Your task to perform on an android device: choose inbox layout in the gmail app Image 0: 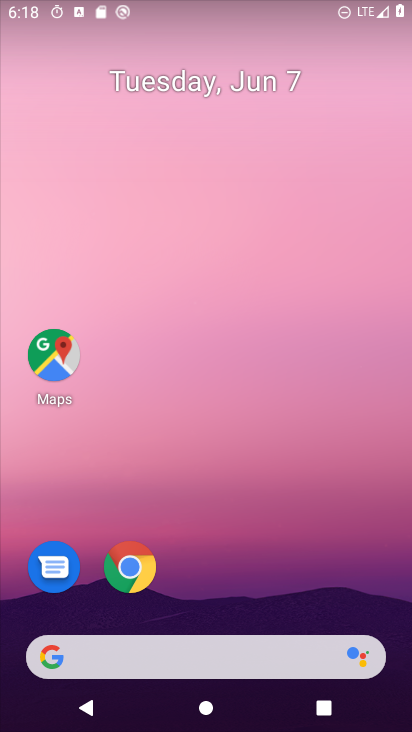
Step 0: drag from (328, 598) to (327, 12)
Your task to perform on an android device: choose inbox layout in the gmail app Image 1: 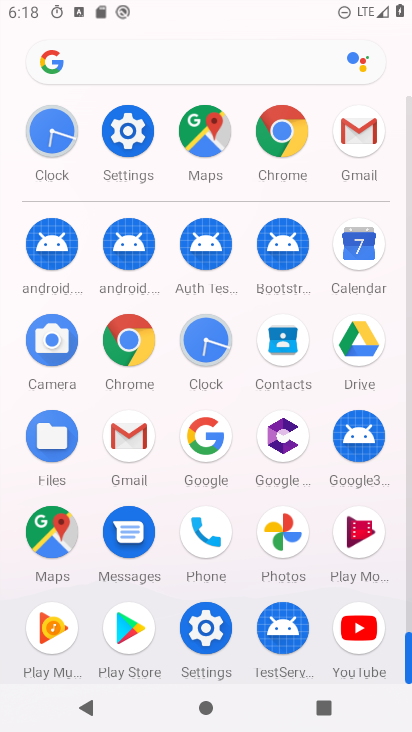
Step 1: click (134, 417)
Your task to perform on an android device: choose inbox layout in the gmail app Image 2: 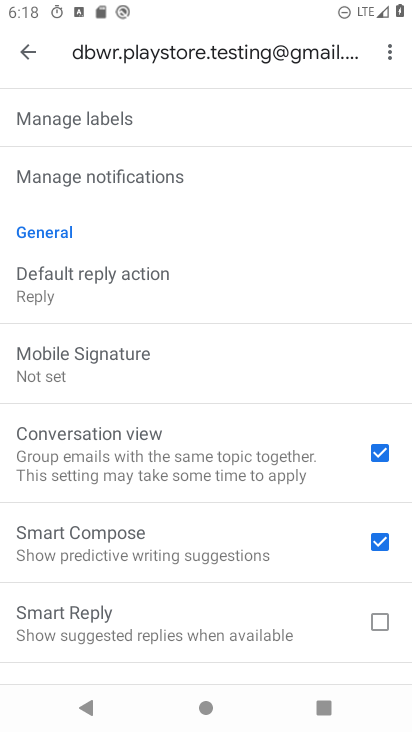
Step 2: press back button
Your task to perform on an android device: choose inbox layout in the gmail app Image 3: 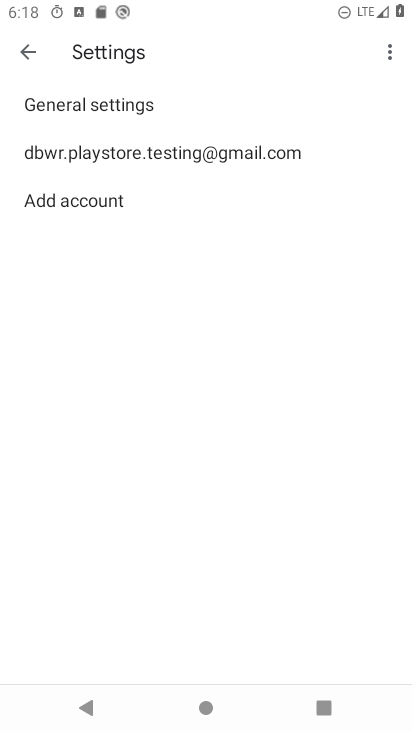
Step 3: click (211, 160)
Your task to perform on an android device: choose inbox layout in the gmail app Image 4: 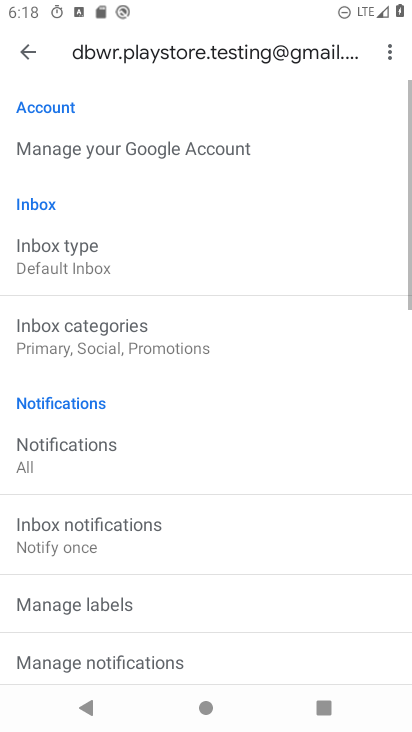
Step 4: click (153, 269)
Your task to perform on an android device: choose inbox layout in the gmail app Image 5: 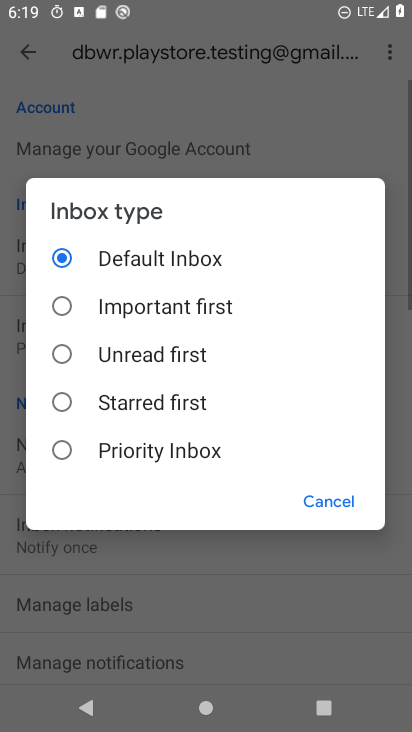
Step 5: click (156, 303)
Your task to perform on an android device: choose inbox layout in the gmail app Image 6: 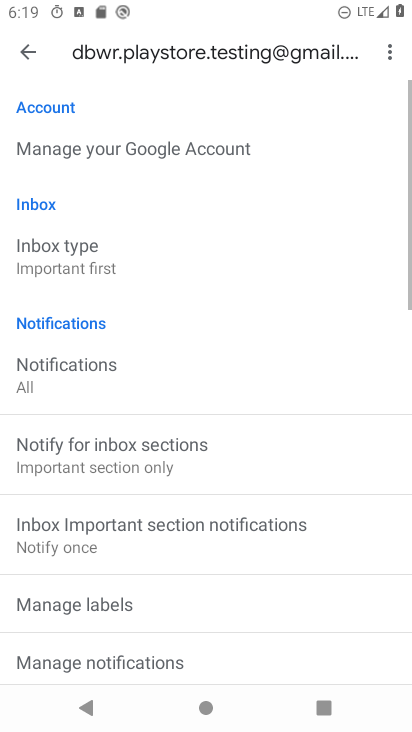
Step 6: task complete